Your task to perform on an android device: open sync settings in chrome Image 0: 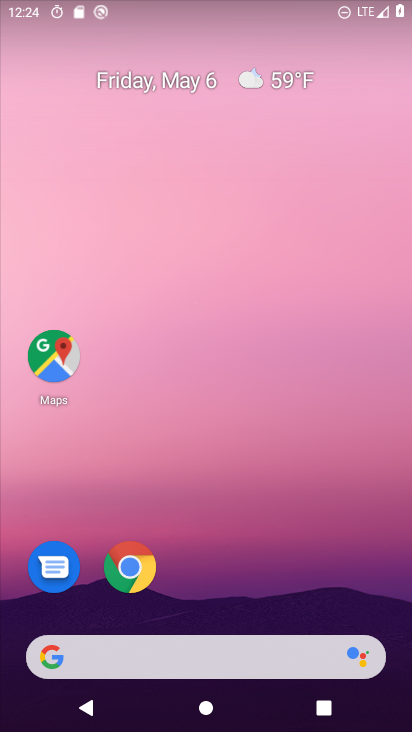
Step 0: click (133, 581)
Your task to perform on an android device: open sync settings in chrome Image 1: 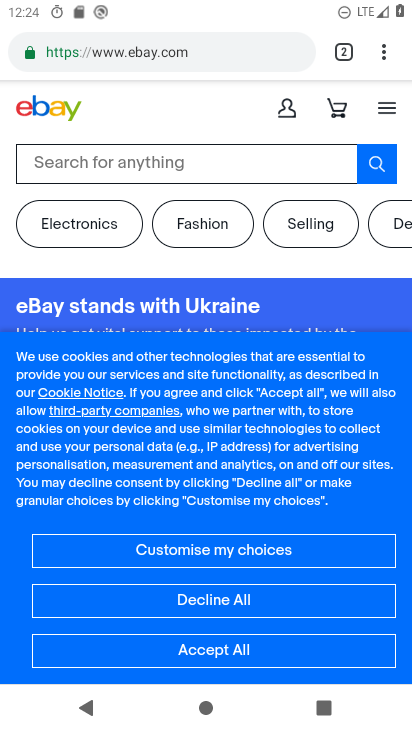
Step 1: drag from (384, 49) to (206, 609)
Your task to perform on an android device: open sync settings in chrome Image 2: 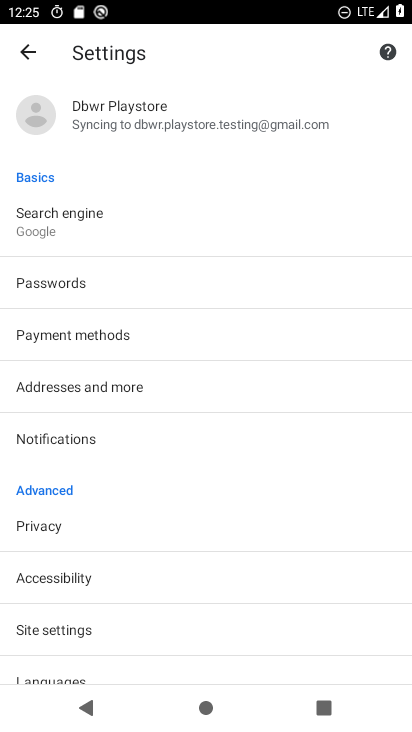
Step 2: click (129, 124)
Your task to perform on an android device: open sync settings in chrome Image 3: 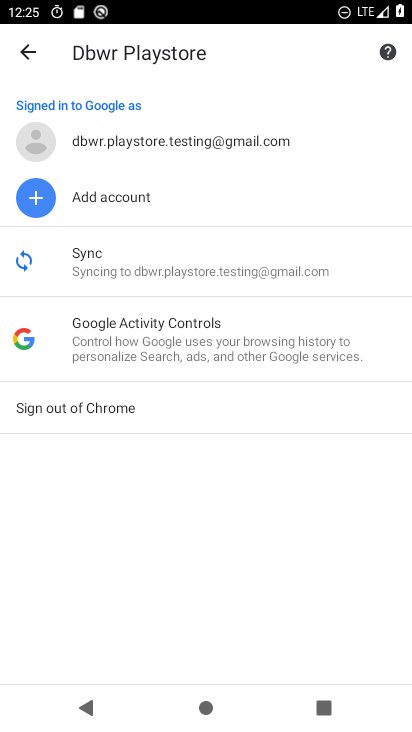
Step 3: click (81, 267)
Your task to perform on an android device: open sync settings in chrome Image 4: 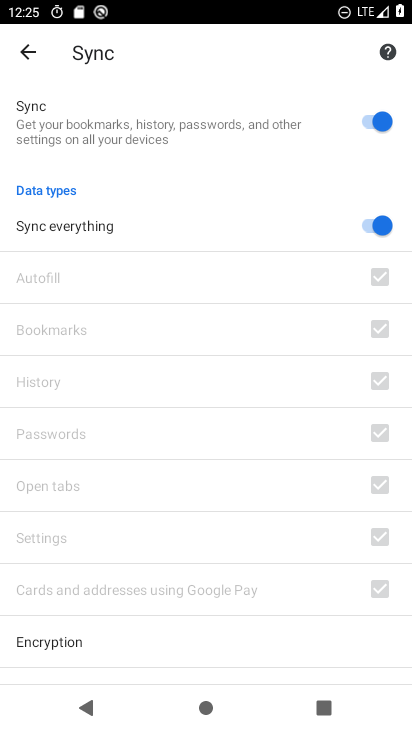
Step 4: task complete